Your task to perform on an android device: move an email to a new category in the gmail app Image 0: 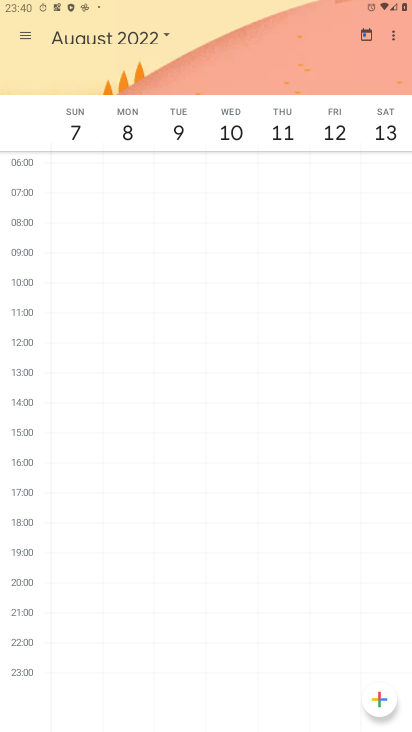
Step 0: press home button
Your task to perform on an android device: move an email to a new category in the gmail app Image 1: 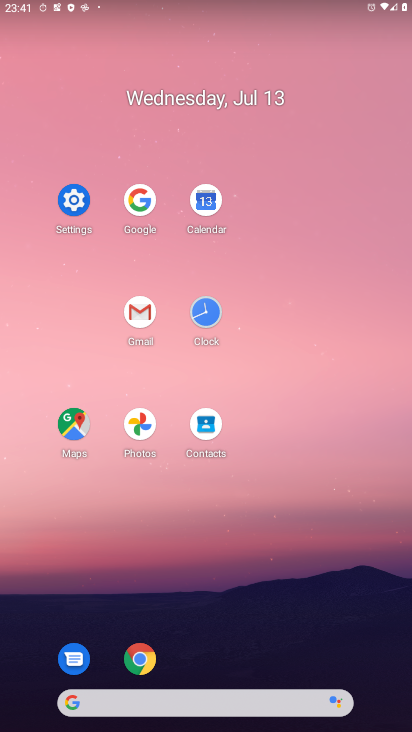
Step 1: click (144, 305)
Your task to perform on an android device: move an email to a new category in the gmail app Image 2: 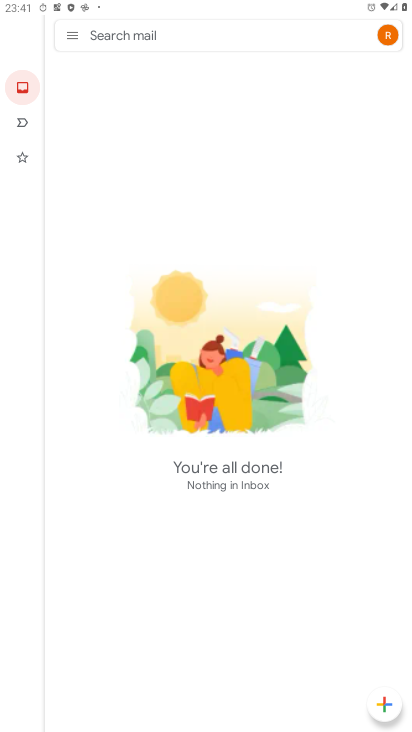
Step 2: click (79, 38)
Your task to perform on an android device: move an email to a new category in the gmail app Image 3: 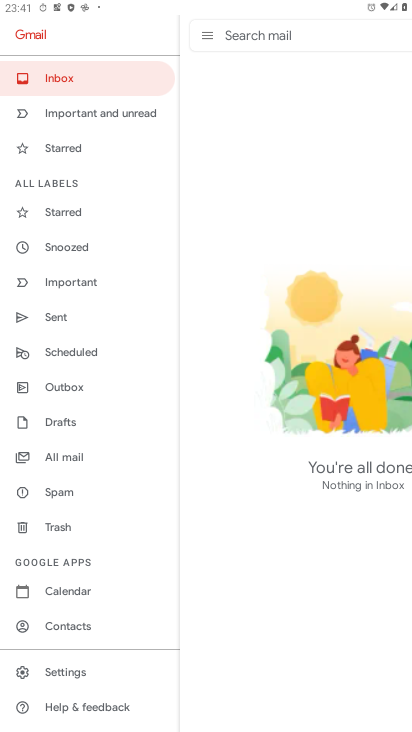
Step 3: task complete